Your task to perform on an android device: Open Google Image 0: 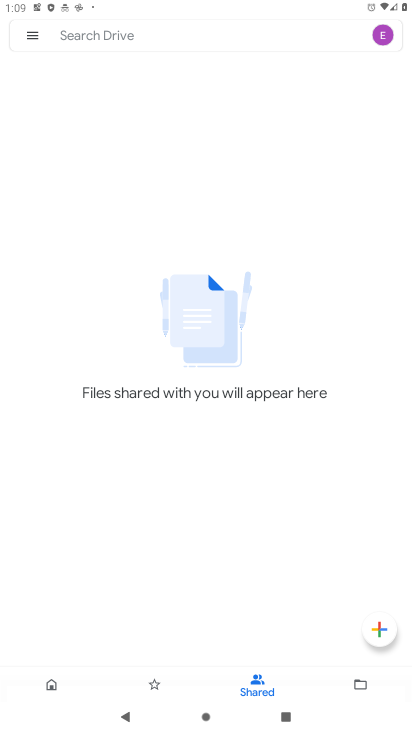
Step 0: press home button
Your task to perform on an android device: Open Google Image 1: 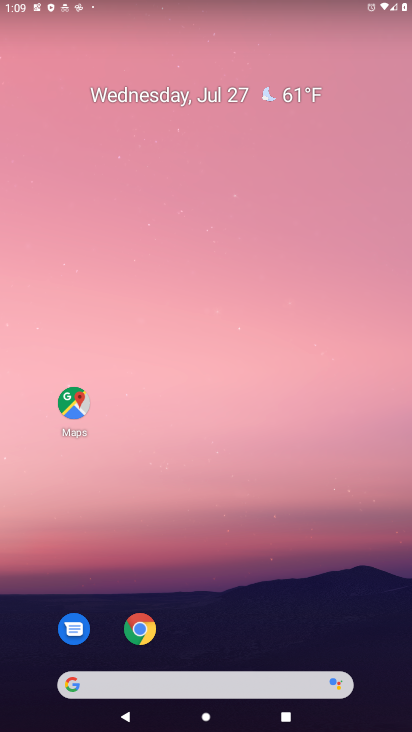
Step 1: drag from (296, 652) to (272, 152)
Your task to perform on an android device: Open Google Image 2: 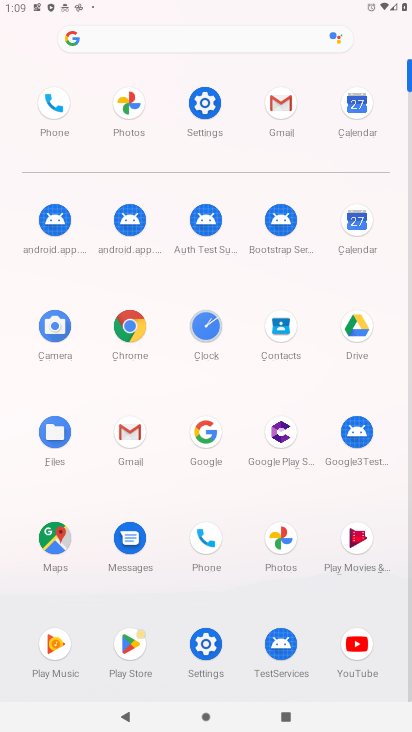
Step 2: click (204, 41)
Your task to perform on an android device: Open Google Image 3: 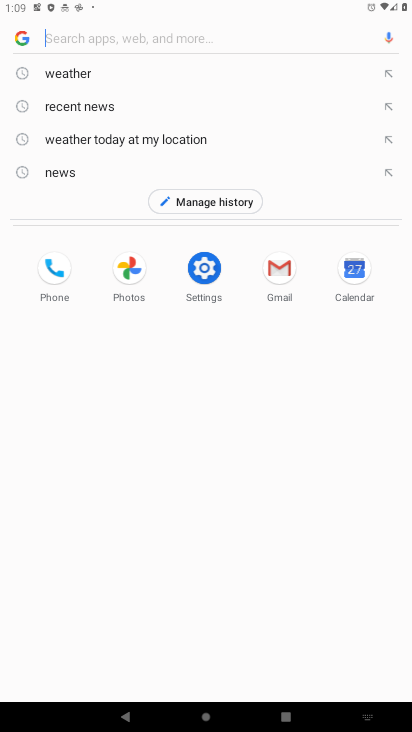
Step 3: type "google.com"
Your task to perform on an android device: Open Google Image 4: 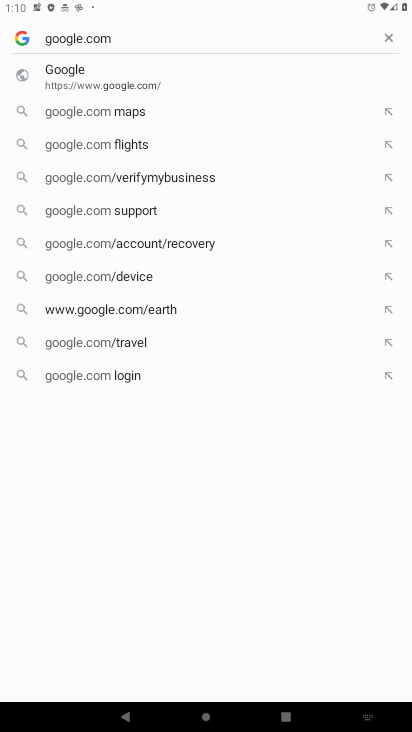
Step 4: click (194, 80)
Your task to perform on an android device: Open Google Image 5: 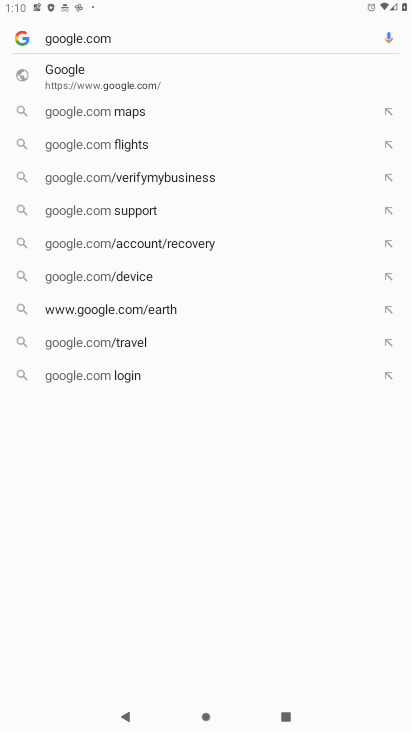
Step 5: task complete